Your task to perform on an android device: Show me popular games on the Play Store Image 0: 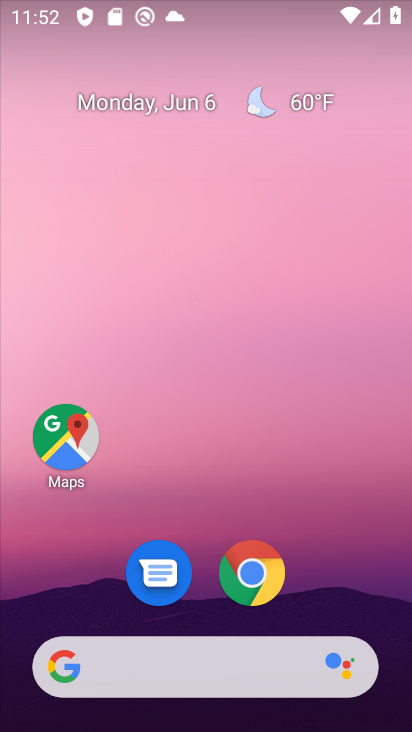
Step 0: drag from (329, 590) to (322, 332)
Your task to perform on an android device: Show me popular games on the Play Store Image 1: 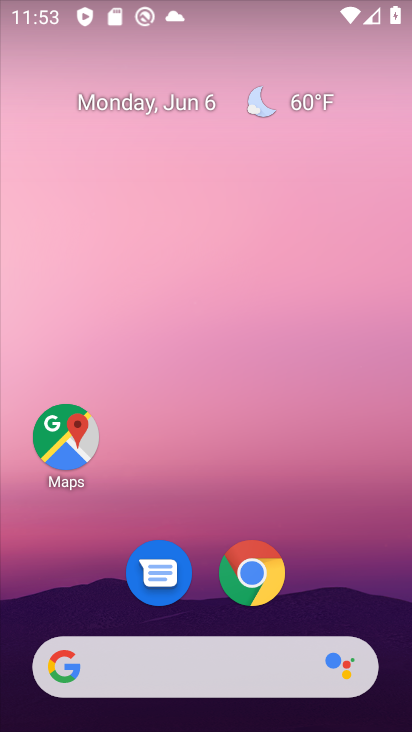
Step 1: drag from (367, 586) to (342, 116)
Your task to perform on an android device: Show me popular games on the Play Store Image 2: 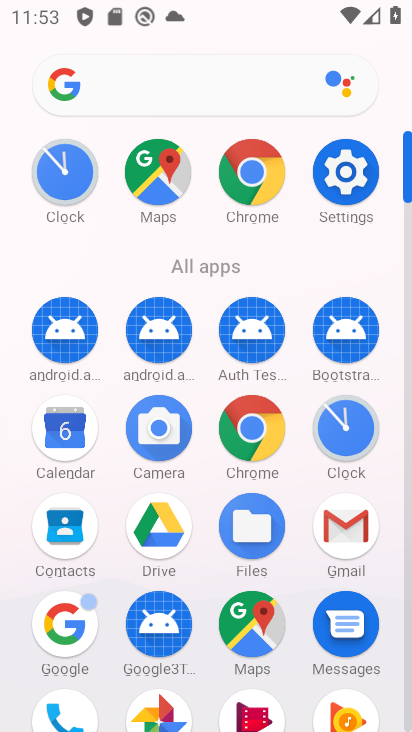
Step 2: drag from (220, 587) to (210, 270)
Your task to perform on an android device: Show me popular games on the Play Store Image 3: 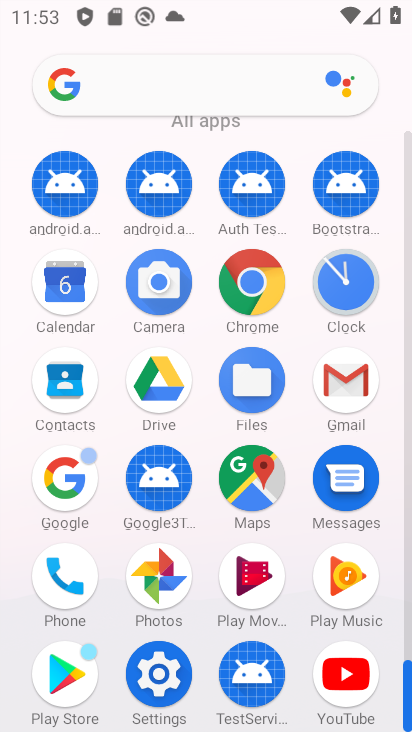
Step 3: click (47, 677)
Your task to perform on an android device: Show me popular games on the Play Store Image 4: 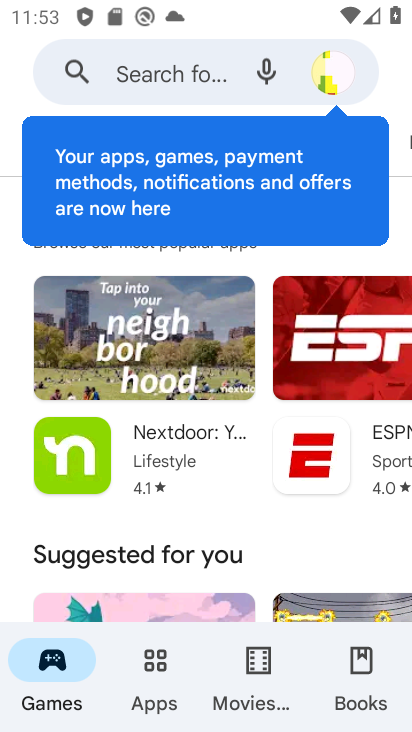
Step 4: click (171, 81)
Your task to perform on an android device: Show me popular games on the Play Store Image 5: 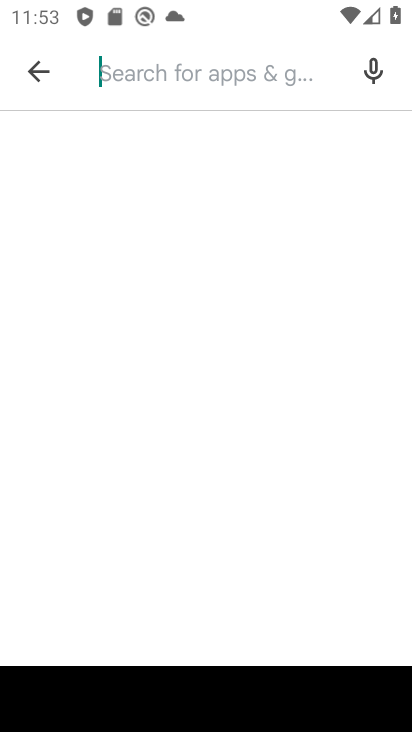
Step 5: type " popular games"
Your task to perform on an android device: Show me popular games on the Play Store Image 6: 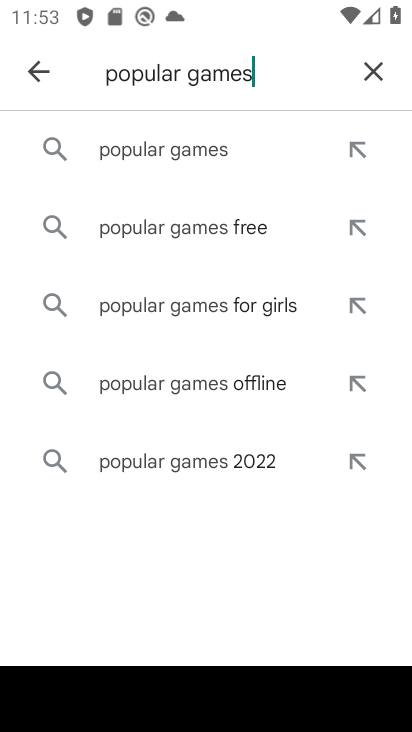
Step 6: click (259, 136)
Your task to perform on an android device: Show me popular games on the Play Store Image 7: 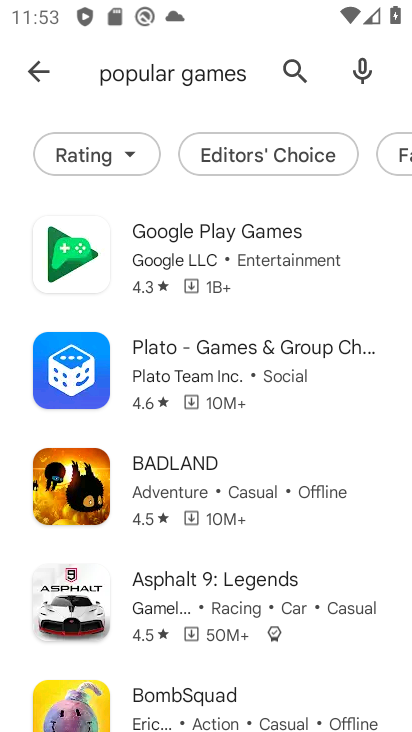
Step 7: task complete